Your task to perform on an android device: Open Chrome and go to the settings page Image 0: 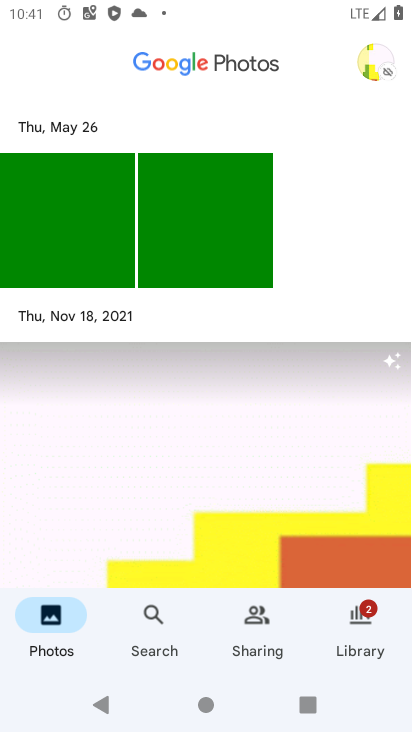
Step 0: press home button
Your task to perform on an android device: Open Chrome and go to the settings page Image 1: 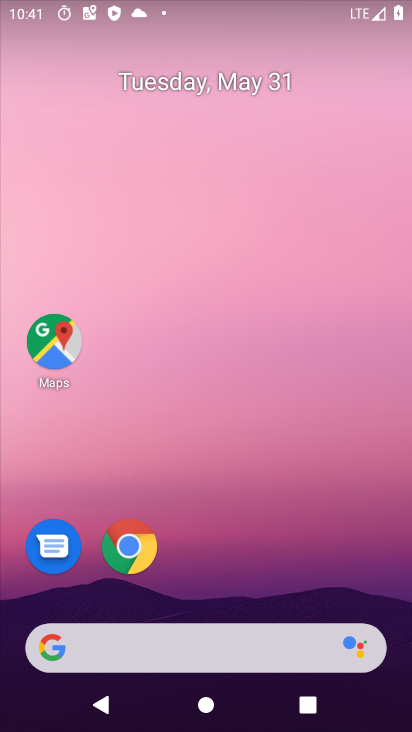
Step 1: click (408, 452)
Your task to perform on an android device: Open Chrome and go to the settings page Image 2: 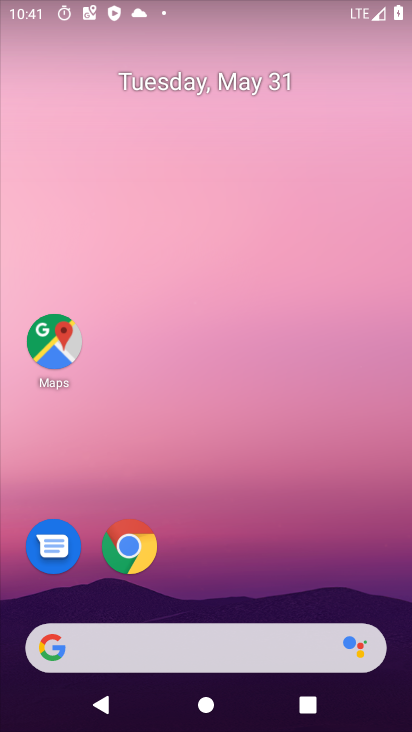
Step 2: click (124, 539)
Your task to perform on an android device: Open Chrome and go to the settings page Image 3: 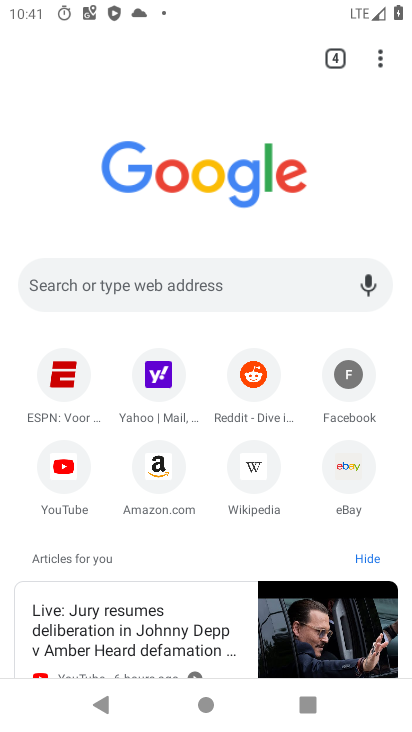
Step 3: click (381, 51)
Your task to perform on an android device: Open Chrome and go to the settings page Image 4: 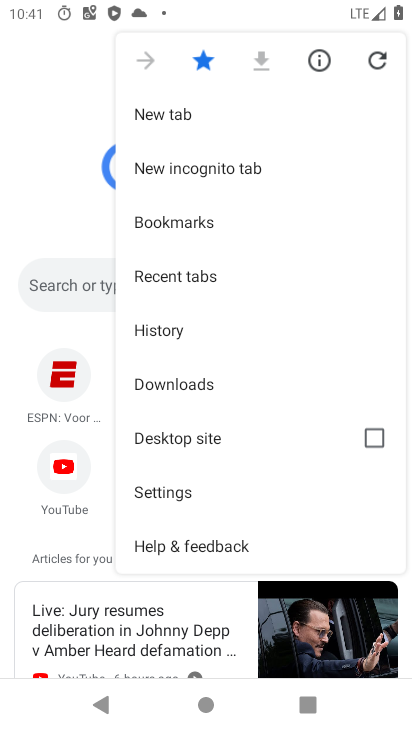
Step 4: click (167, 498)
Your task to perform on an android device: Open Chrome and go to the settings page Image 5: 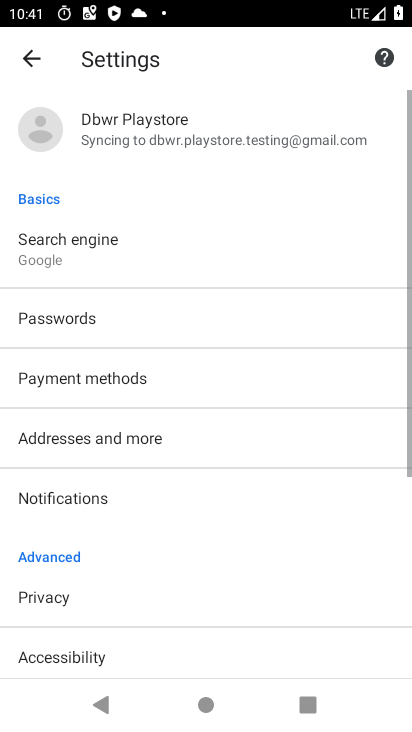
Step 5: task complete